Your task to perform on an android device: turn off sleep mode Image 0: 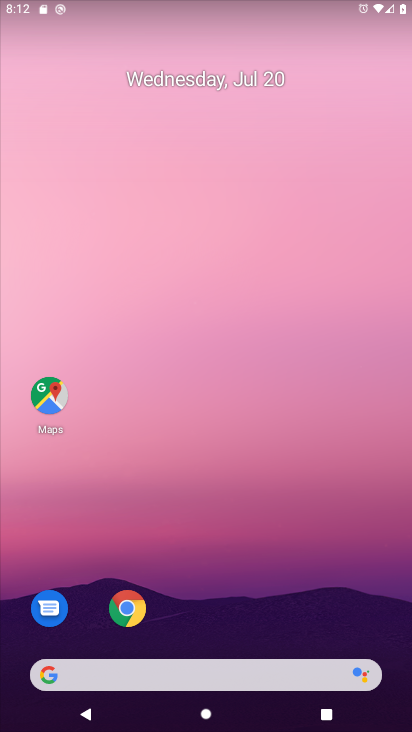
Step 0: drag from (150, 627) to (191, 253)
Your task to perform on an android device: turn off sleep mode Image 1: 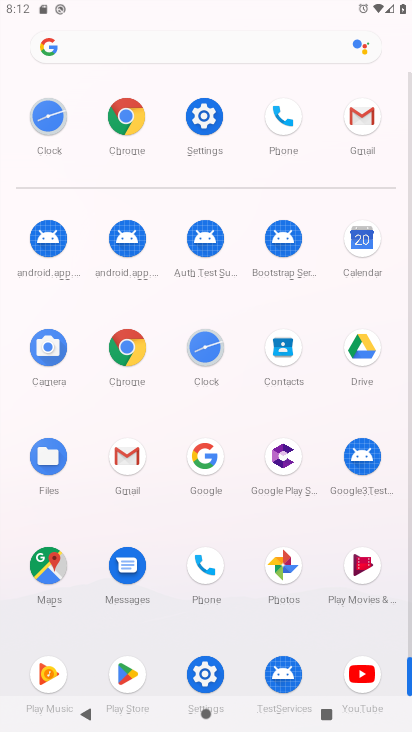
Step 1: click (195, 105)
Your task to perform on an android device: turn off sleep mode Image 2: 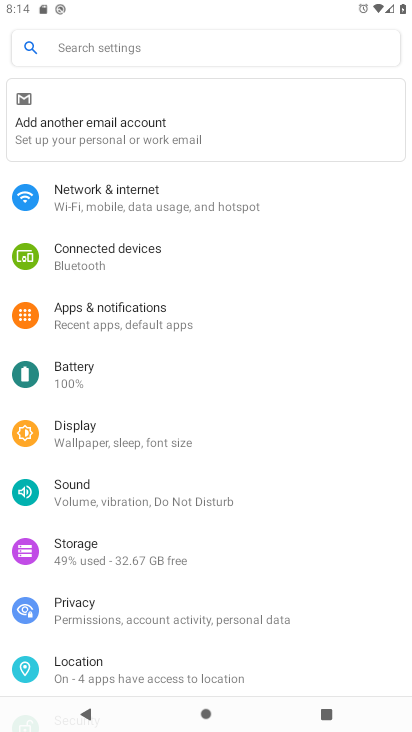
Step 2: task complete